Your task to perform on an android device: What is the recent news? Image 0: 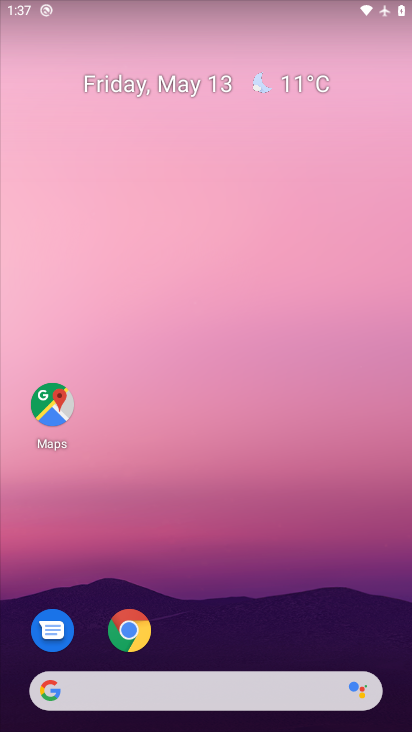
Step 0: drag from (251, 642) to (244, 250)
Your task to perform on an android device: What is the recent news? Image 1: 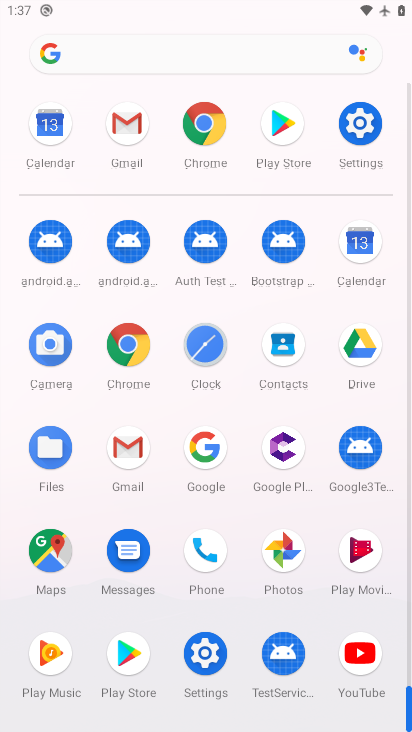
Step 1: click (217, 457)
Your task to perform on an android device: What is the recent news? Image 2: 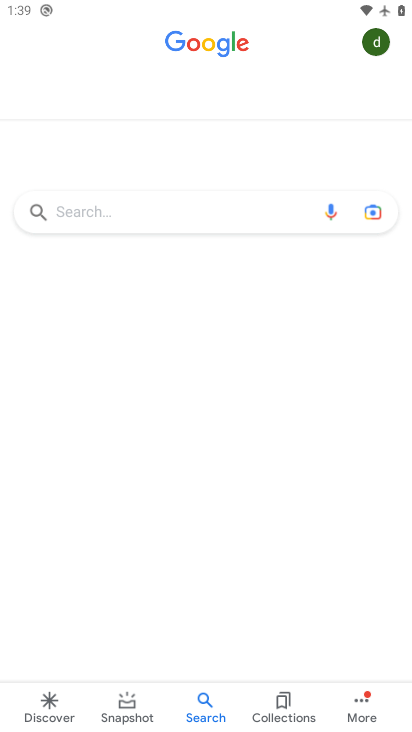
Step 2: click (49, 700)
Your task to perform on an android device: What is the recent news? Image 3: 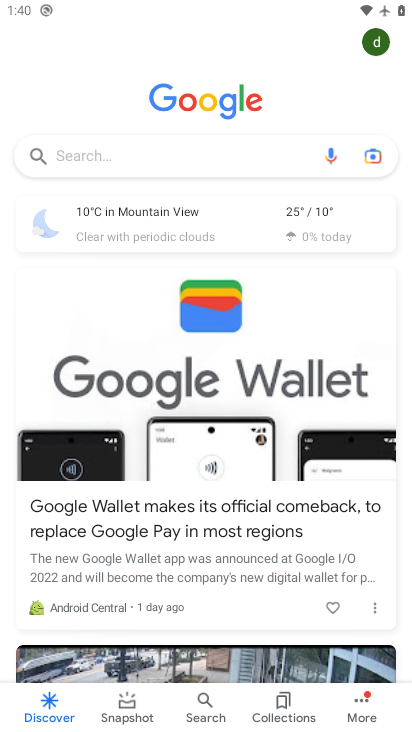
Step 3: task complete